Your task to perform on an android device: toggle location history Image 0: 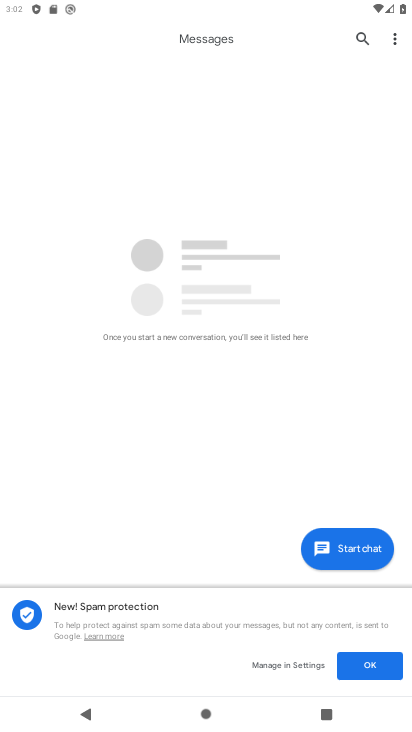
Step 0: press home button
Your task to perform on an android device: toggle location history Image 1: 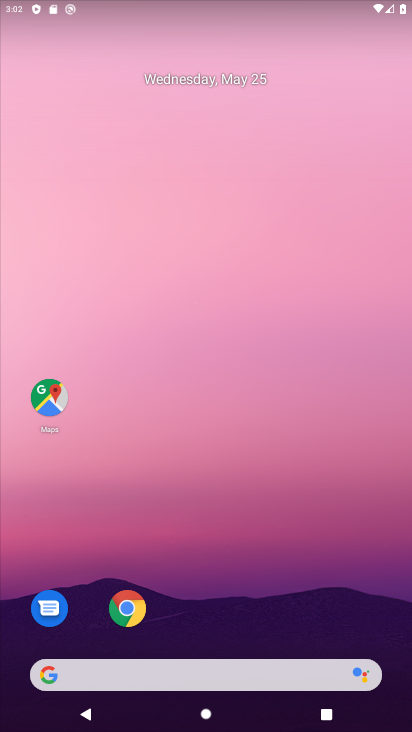
Step 1: drag from (298, 574) to (228, 139)
Your task to perform on an android device: toggle location history Image 2: 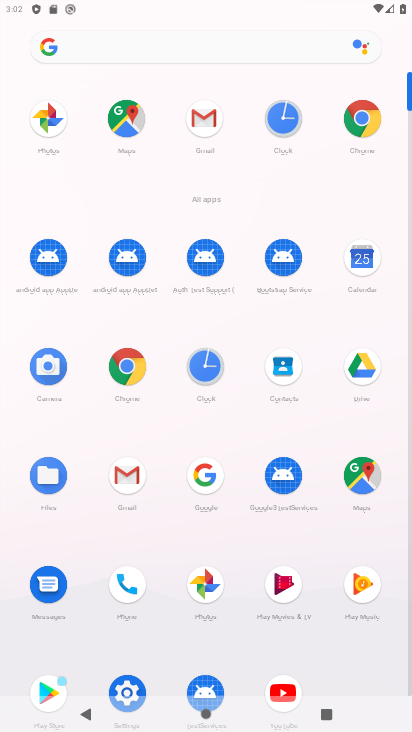
Step 2: click (129, 680)
Your task to perform on an android device: toggle location history Image 3: 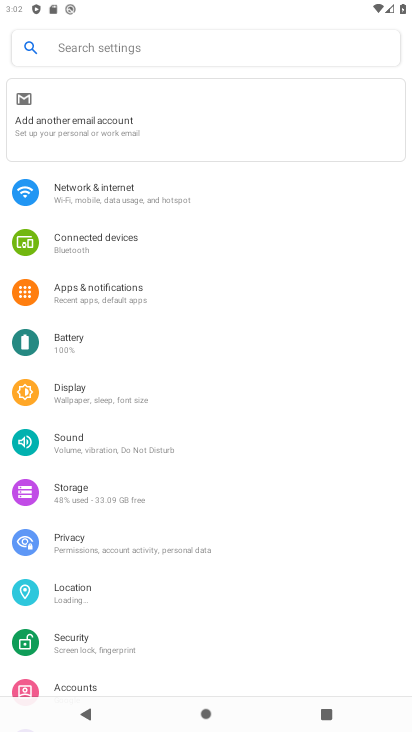
Step 3: drag from (212, 516) to (259, 161)
Your task to perform on an android device: toggle location history Image 4: 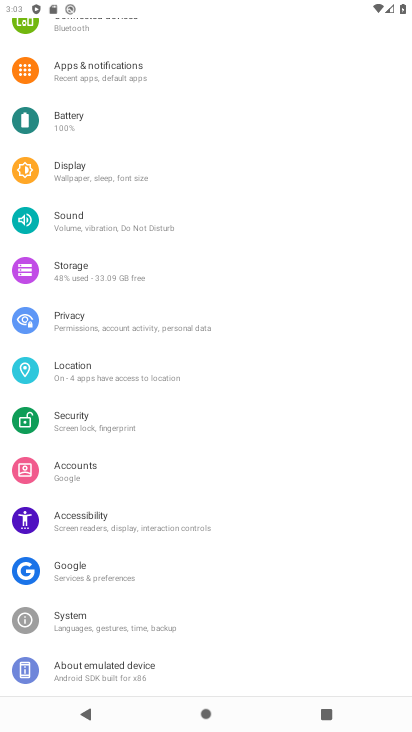
Step 4: drag from (195, 587) to (282, 200)
Your task to perform on an android device: toggle location history Image 5: 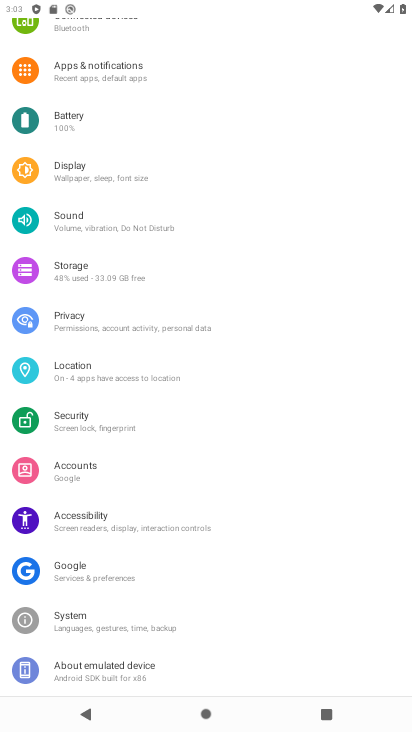
Step 5: click (101, 366)
Your task to perform on an android device: toggle location history Image 6: 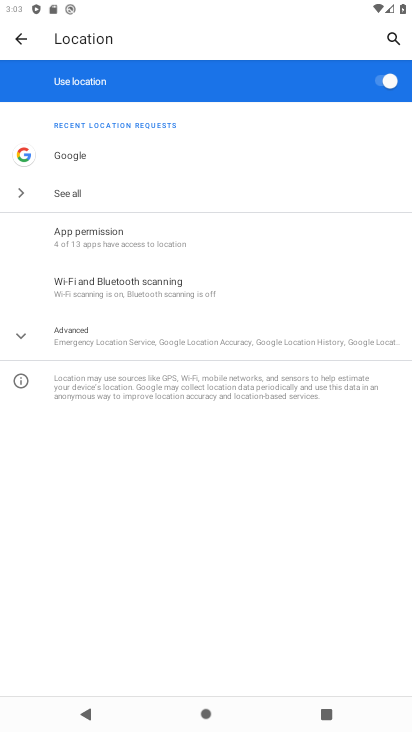
Step 6: click (127, 319)
Your task to perform on an android device: toggle location history Image 7: 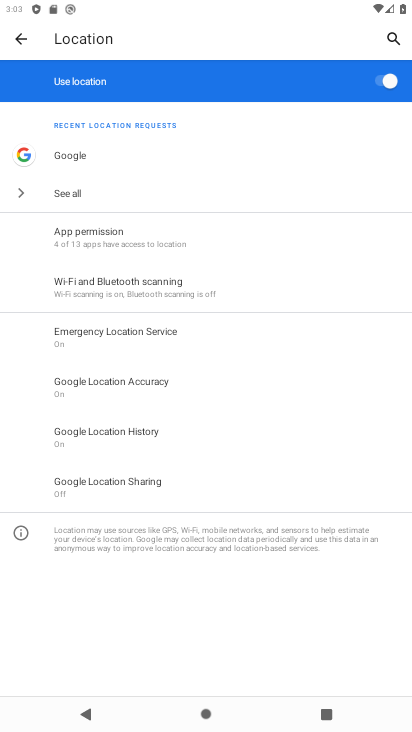
Step 7: click (117, 434)
Your task to perform on an android device: toggle location history Image 8: 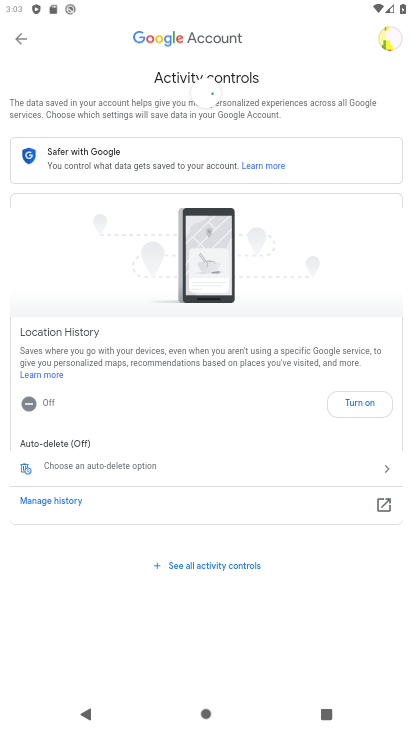
Step 8: click (364, 404)
Your task to perform on an android device: toggle location history Image 9: 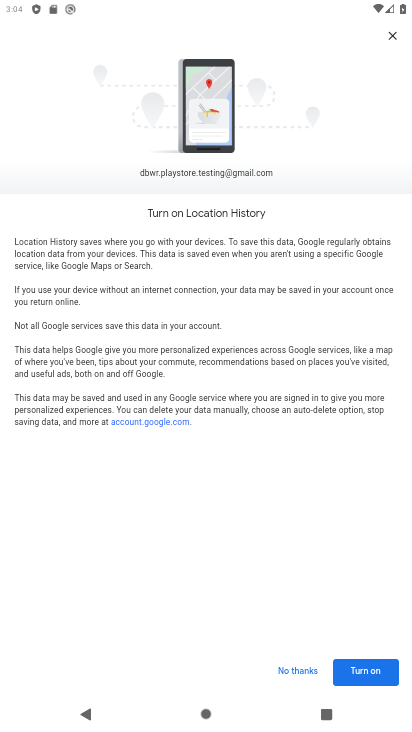
Step 9: click (365, 672)
Your task to perform on an android device: toggle location history Image 10: 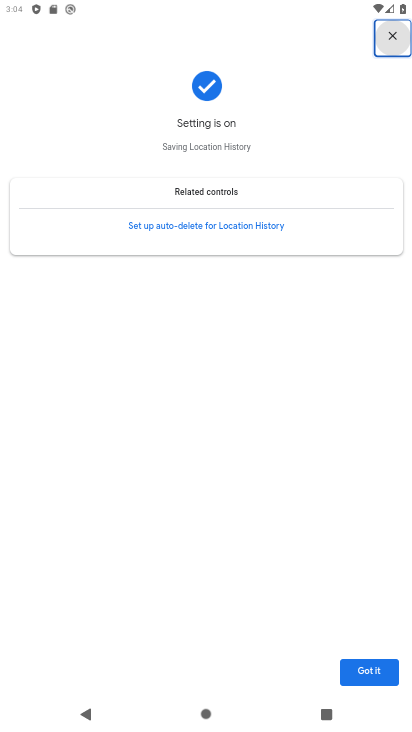
Step 10: task complete